Your task to perform on an android device: Show me productivity apps on the Play Store Image 0: 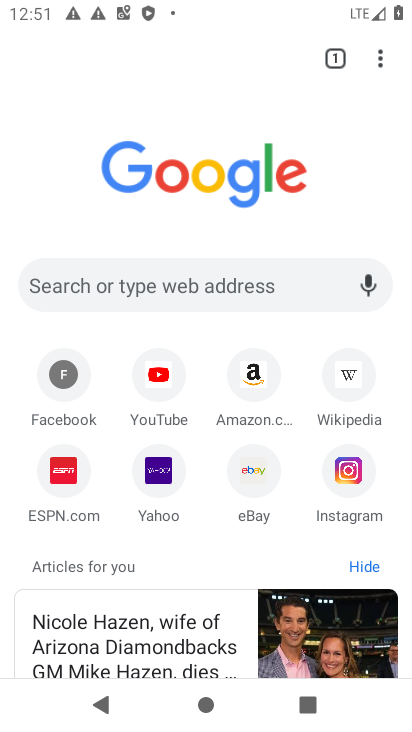
Step 0: press home button
Your task to perform on an android device: Show me productivity apps on the Play Store Image 1: 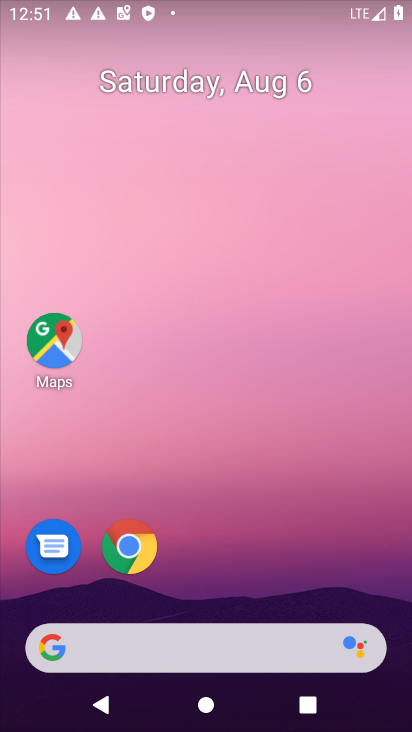
Step 1: drag from (366, 594) to (340, 91)
Your task to perform on an android device: Show me productivity apps on the Play Store Image 2: 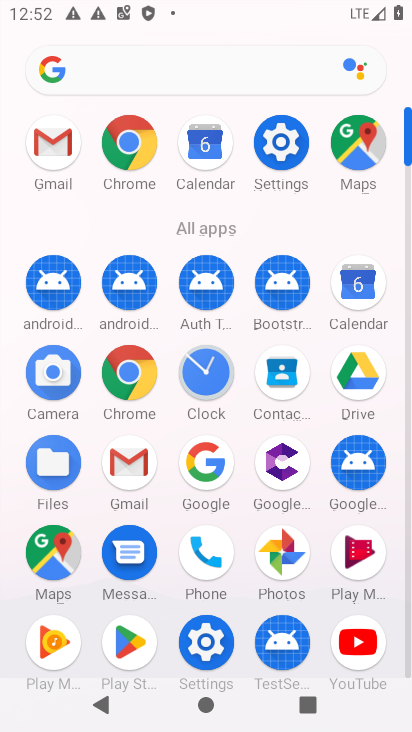
Step 2: click (131, 638)
Your task to perform on an android device: Show me productivity apps on the Play Store Image 3: 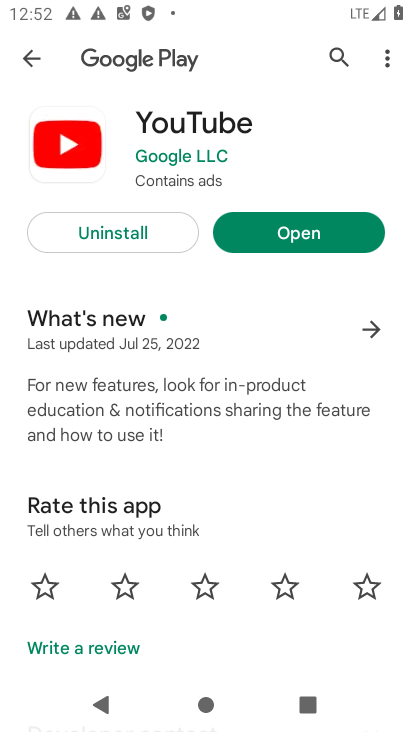
Step 3: press back button
Your task to perform on an android device: Show me productivity apps on the Play Store Image 4: 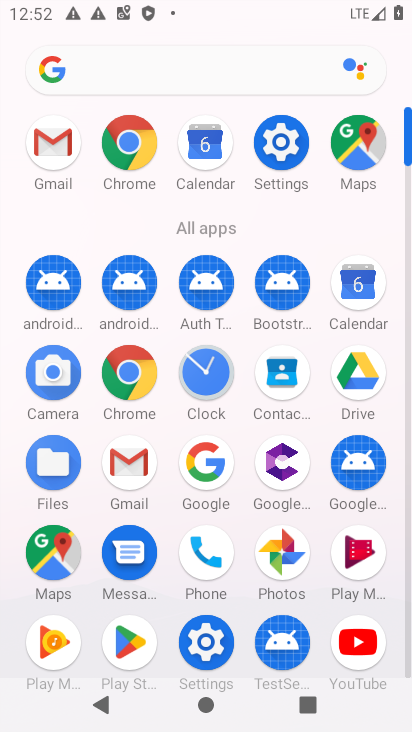
Step 4: click (128, 643)
Your task to perform on an android device: Show me productivity apps on the Play Store Image 5: 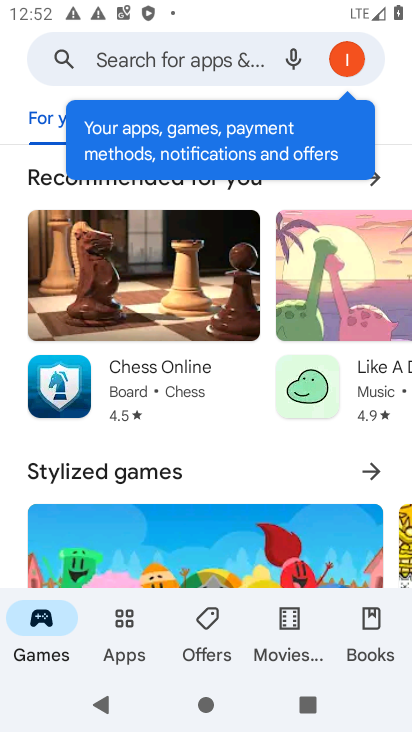
Step 5: click (125, 635)
Your task to perform on an android device: Show me productivity apps on the Play Store Image 6: 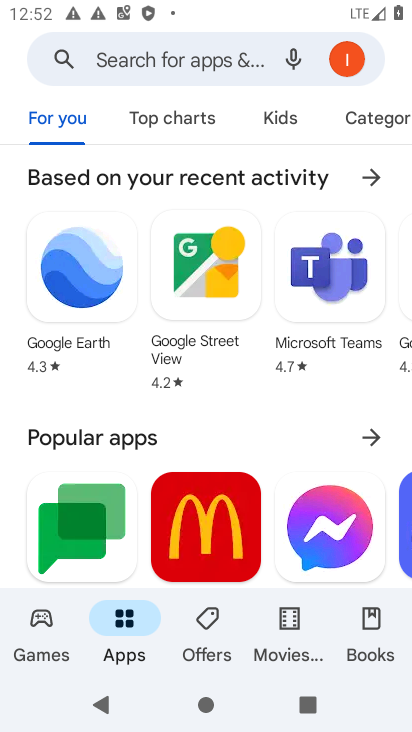
Step 6: click (377, 120)
Your task to perform on an android device: Show me productivity apps on the Play Store Image 7: 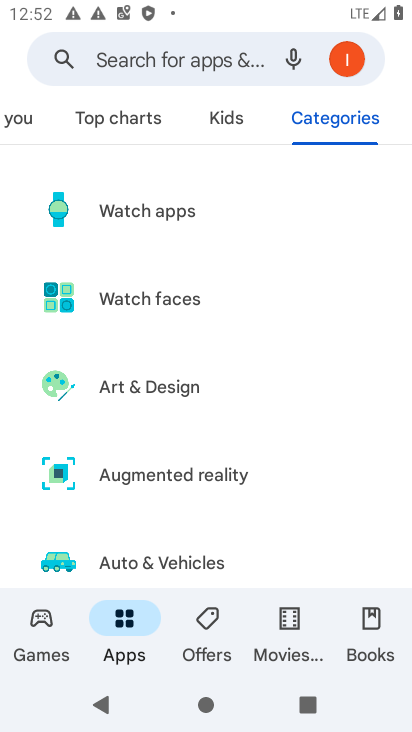
Step 7: drag from (263, 550) to (272, 180)
Your task to perform on an android device: Show me productivity apps on the Play Store Image 8: 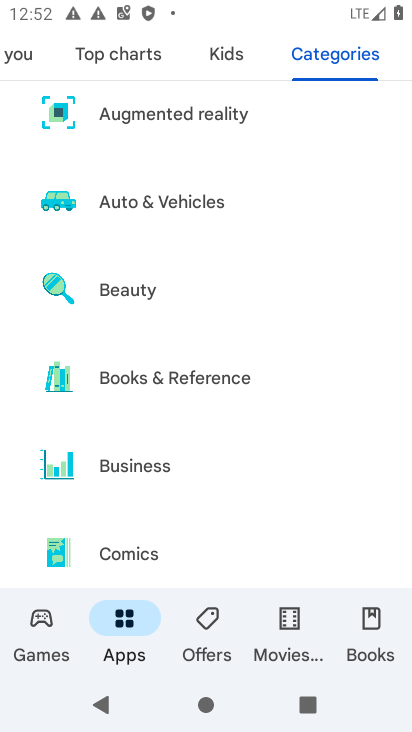
Step 8: drag from (262, 542) to (263, 16)
Your task to perform on an android device: Show me productivity apps on the Play Store Image 9: 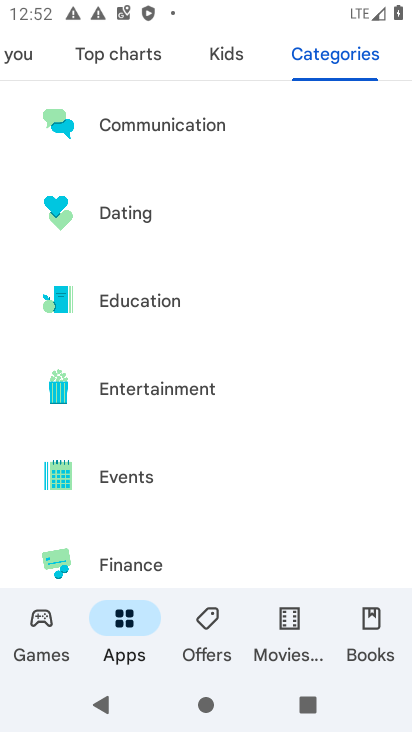
Step 9: drag from (234, 530) to (233, 80)
Your task to perform on an android device: Show me productivity apps on the Play Store Image 10: 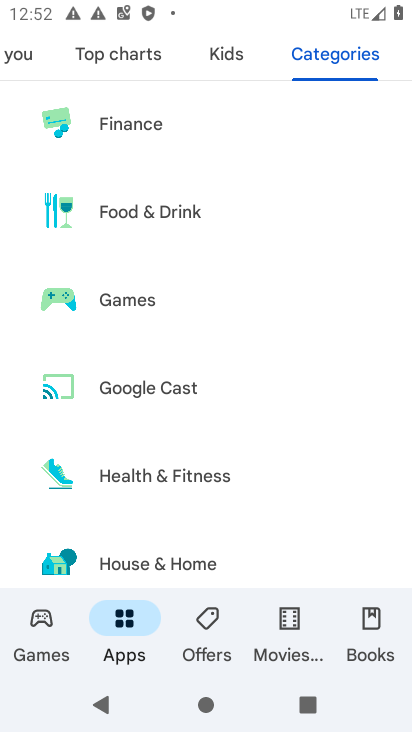
Step 10: drag from (243, 522) to (256, 70)
Your task to perform on an android device: Show me productivity apps on the Play Store Image 11: 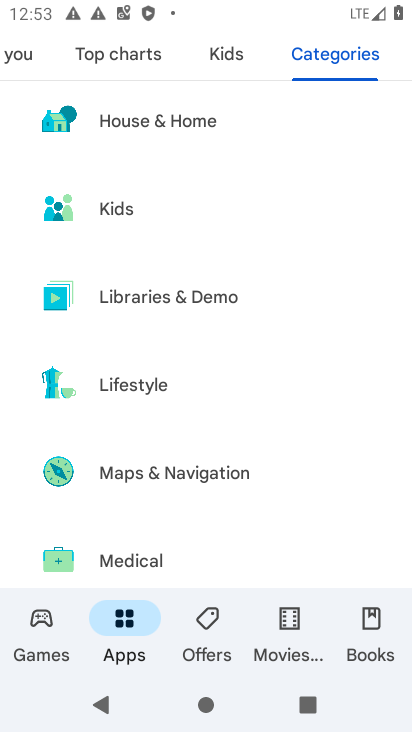
Step 11: drag from (256, 493) to (242, 182)
Your task to perform on an android device: Show me productivity apps on the Play Store Image 12: 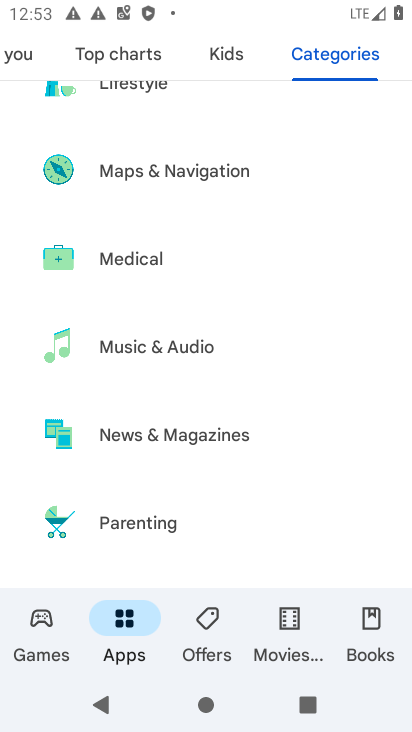
Step 12: drag from (259, 550) to (282, 167)
Your task to perform on an android device: Show me productivity apps on the Play Store Image 13: 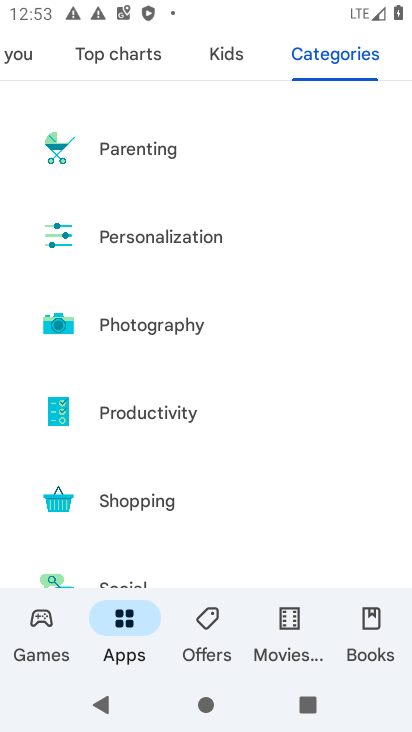
Step 13: click (146, 417)
Your task to perform on an android device: Show me productivity apps on the Play Store Image 14: 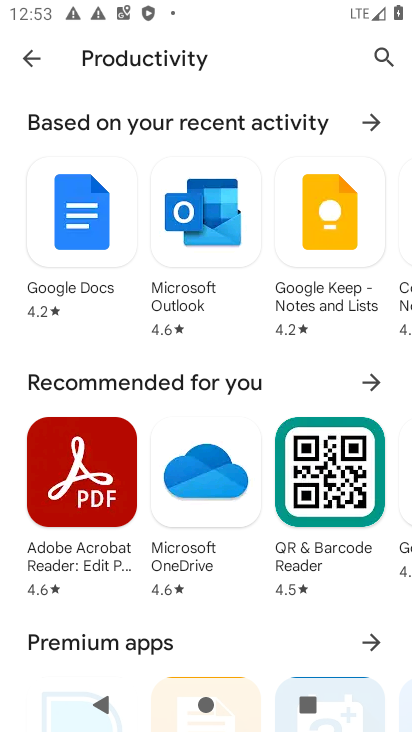
Step 14: drag from (248, 631) to (244, 254)
Your task to perform on an android device: Show me productivity apps on the Play Store Image 15: 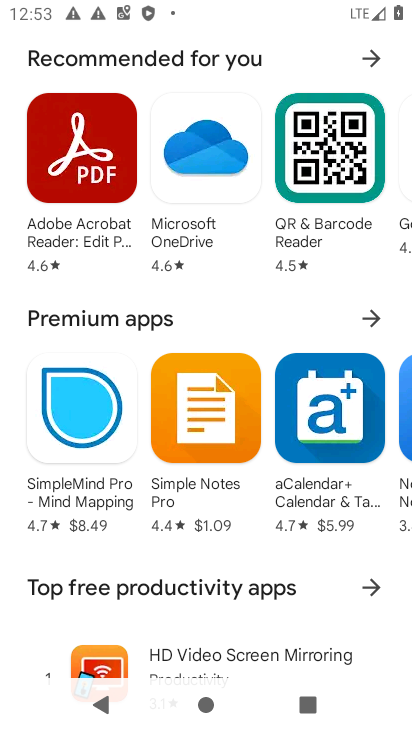
Step 15: drag from (275, 607) to (302, 56)
Your task to perform on an android device: Show me productivity apps on the Play Store Image 16: 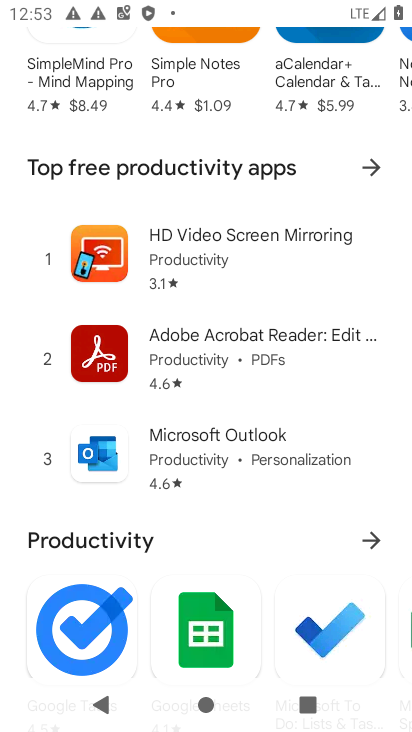
Step 16: click (365, 538)
Your task to perform on an android device: Show me productivity apps on the Play Store Image 17: 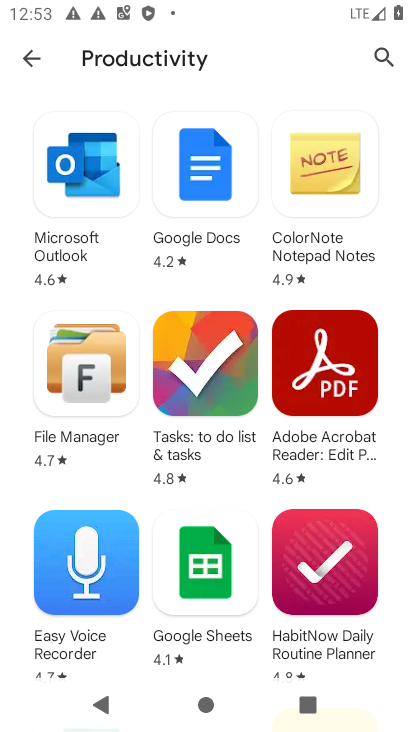
Step 17: drag from (387, 657) to (352, 288)
Your task to perform on an android device: Show me productivity apps on the Play Store Image 18: 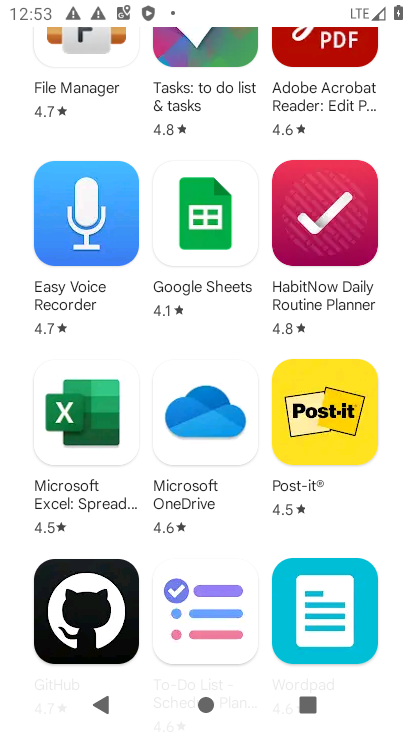
Step 18: drag from (258, 548) to (249, 190)
Your task to perform on an android device: Show me productivity apps on the Play Store Image 19: 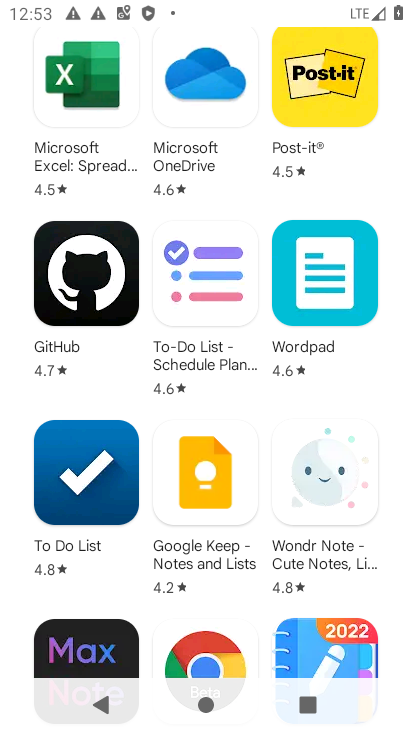
Step 19: drag from (266, 520) to (248, 77)
Your task to perform on an android device: Show me productivity apps on the Play Store Image 20: 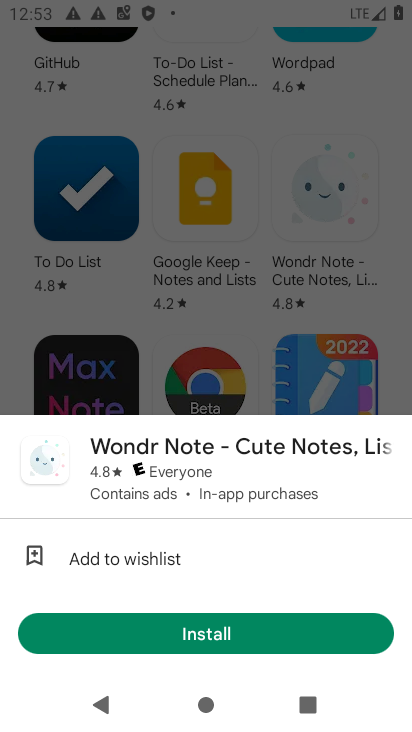
Step 20: click (403, 273)
Your task to perform on an android device: Show me productivity apps on the Play Store Image 21: 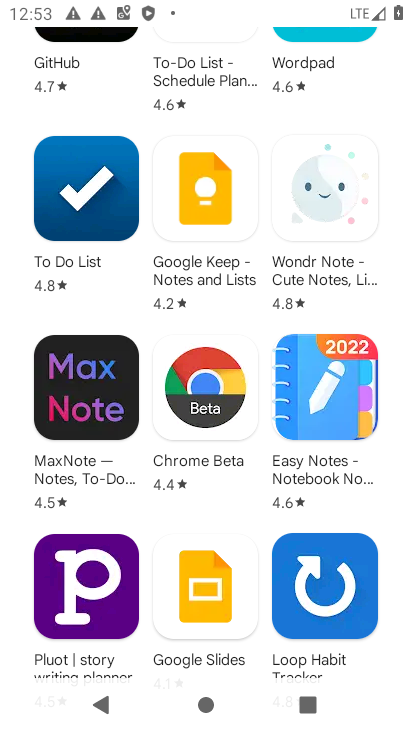
Step 21: task complete